Your task to perform on an android device: turn pop-ups off in chrome Image 0: 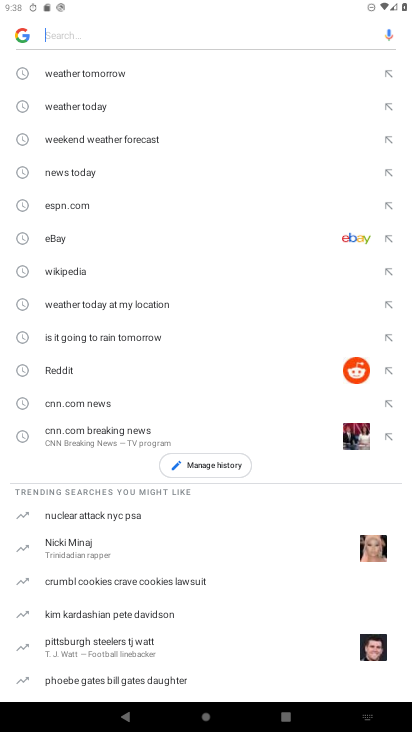
Step 0: press home button
Your task to perform on an android device: turn pop-ups off in chrome Image 1: 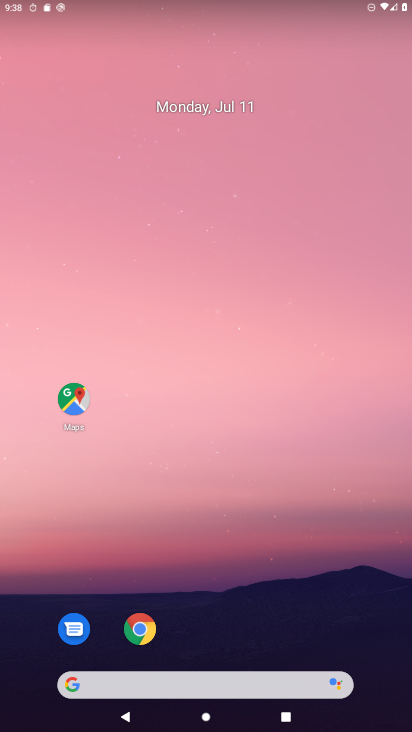
Step 1: click (135, 628)
Your task to perform on an android device: turn pop-ups off in chrome Image 2: 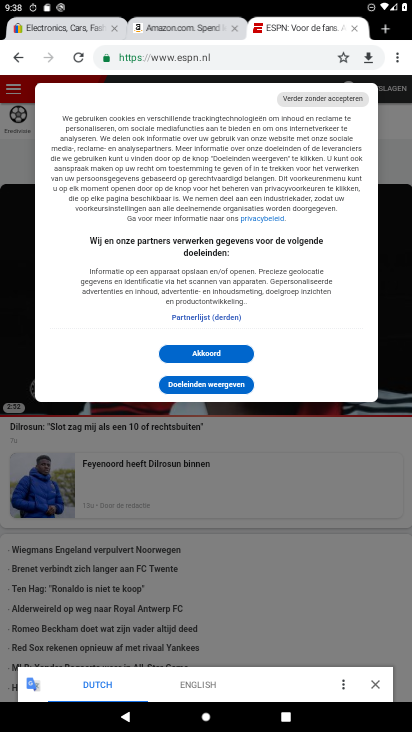
Step 2: click (401, 58)
Your task to perform on an android device: turn pop-ups off in chrome Image 3: 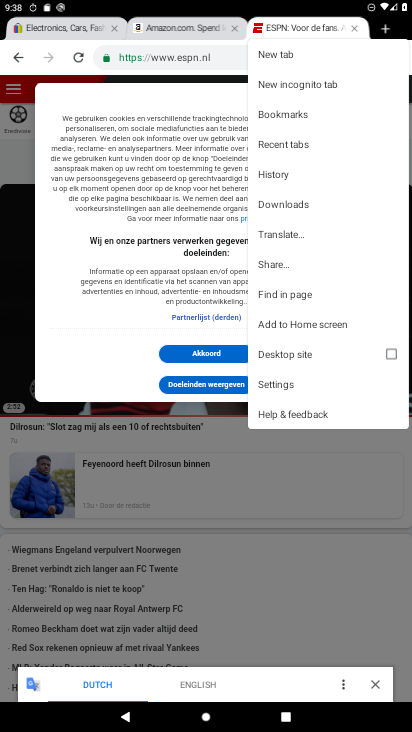
Step 3: click (301, 391)
Your task to perform on an android device: turn pop-ups off in chrome Image 4: 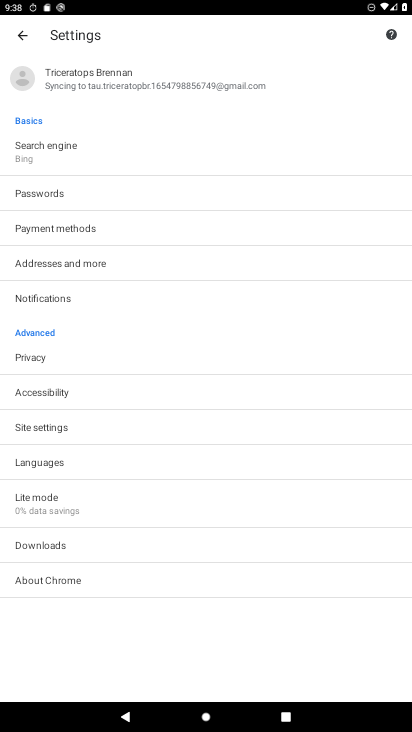
Step 4: click (109, 421)
Your task to perform on an android device: turn pop-ups off in chrome Image 5: 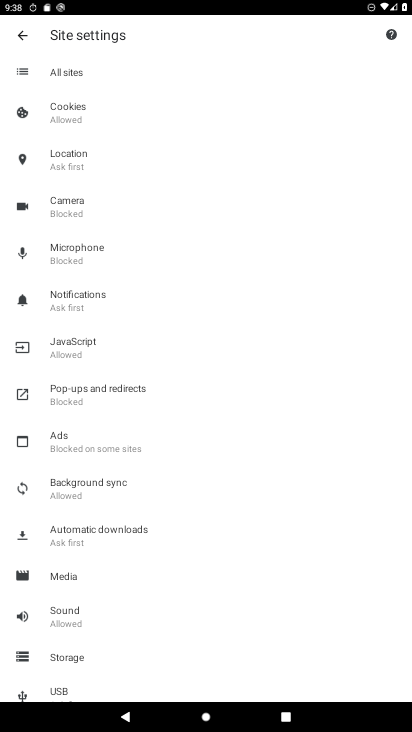
Step 5: click (143, 390)
Your task to perform on an android device: turn pop-ups off in chrome Image 6: 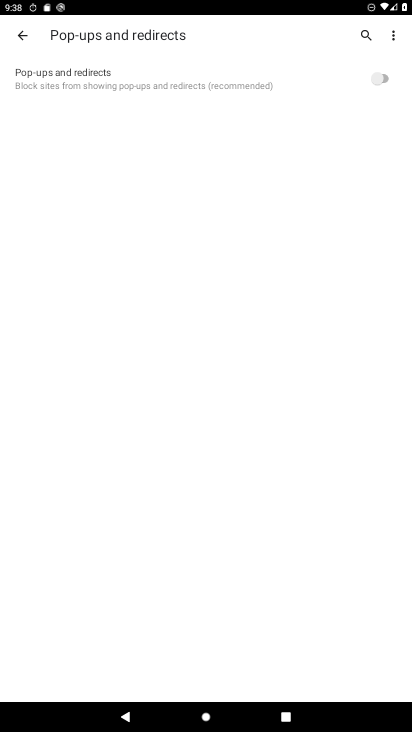
Step 6: task complete